Your task to perform on an android device: see creations saved in the google photos Image 0: 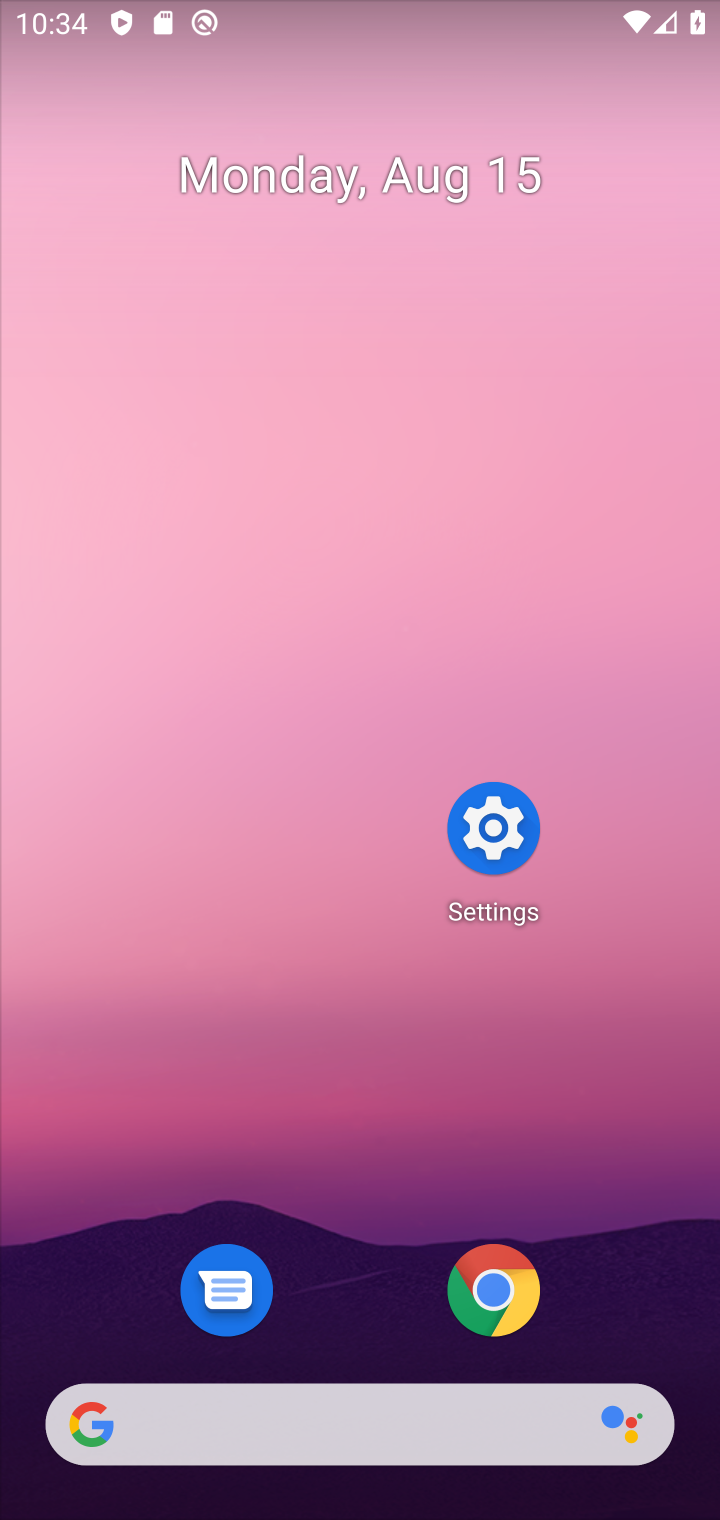
Step 0: press home button
Your task to perform on an android device: see creations saved in the google photos Image 1: 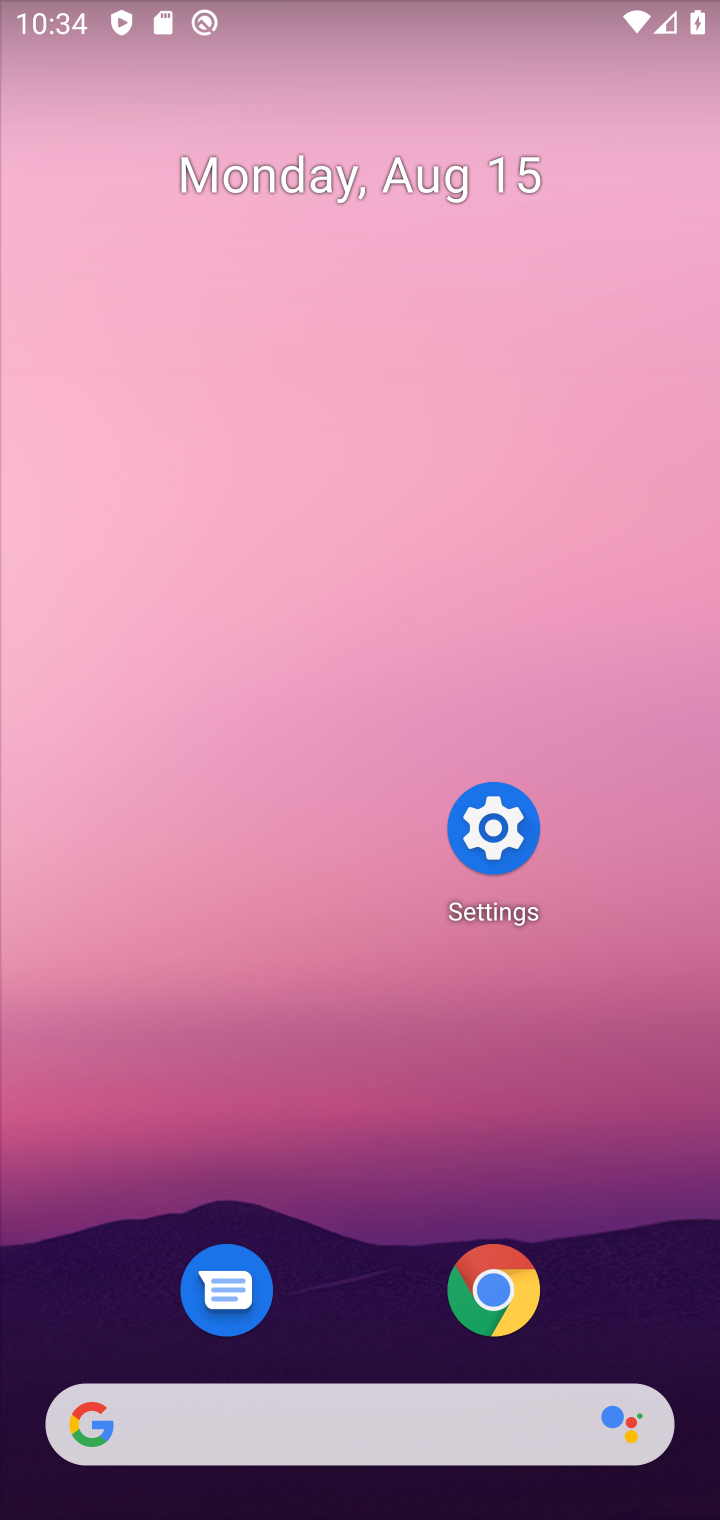
Step 1: drag from (354, 1425) to (666, 153)
Your task to perform on an android device: see creations saved in the google photos Image 2: 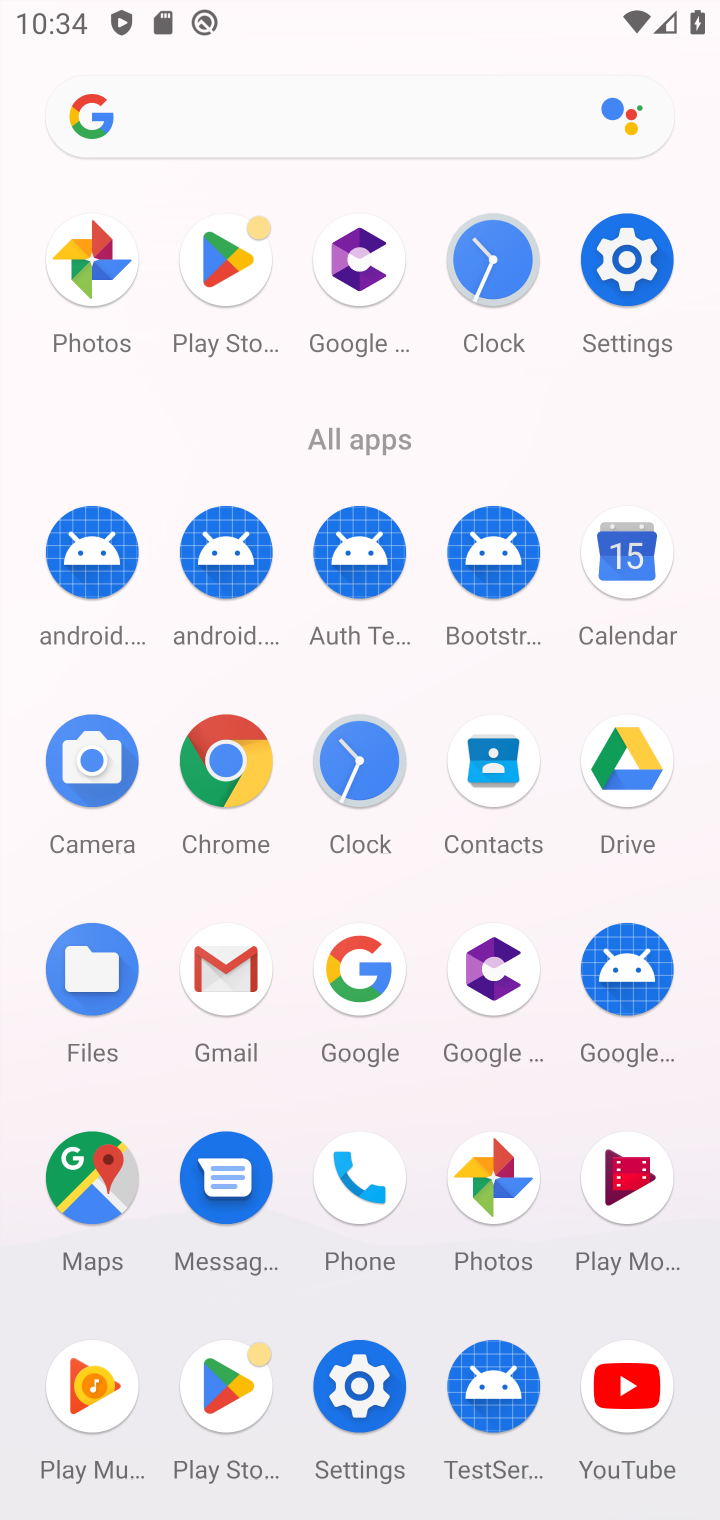
Step 2: click (494, 1179)
Your task to perform on an android device: see creations saved in the google photos Image 3: 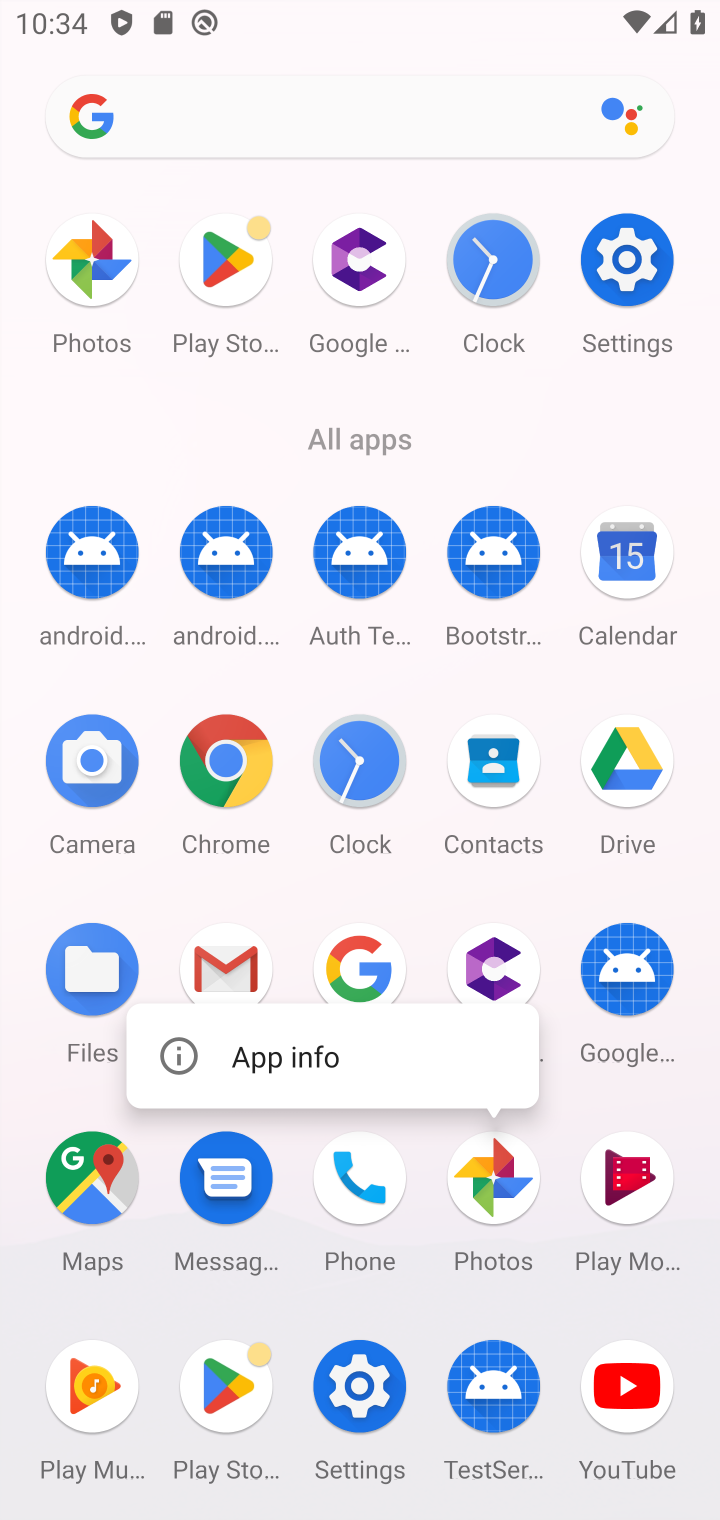
Step 3: click (494, 1181)
Your task to perform on an android device: see creations saved in the google photos Image 4: 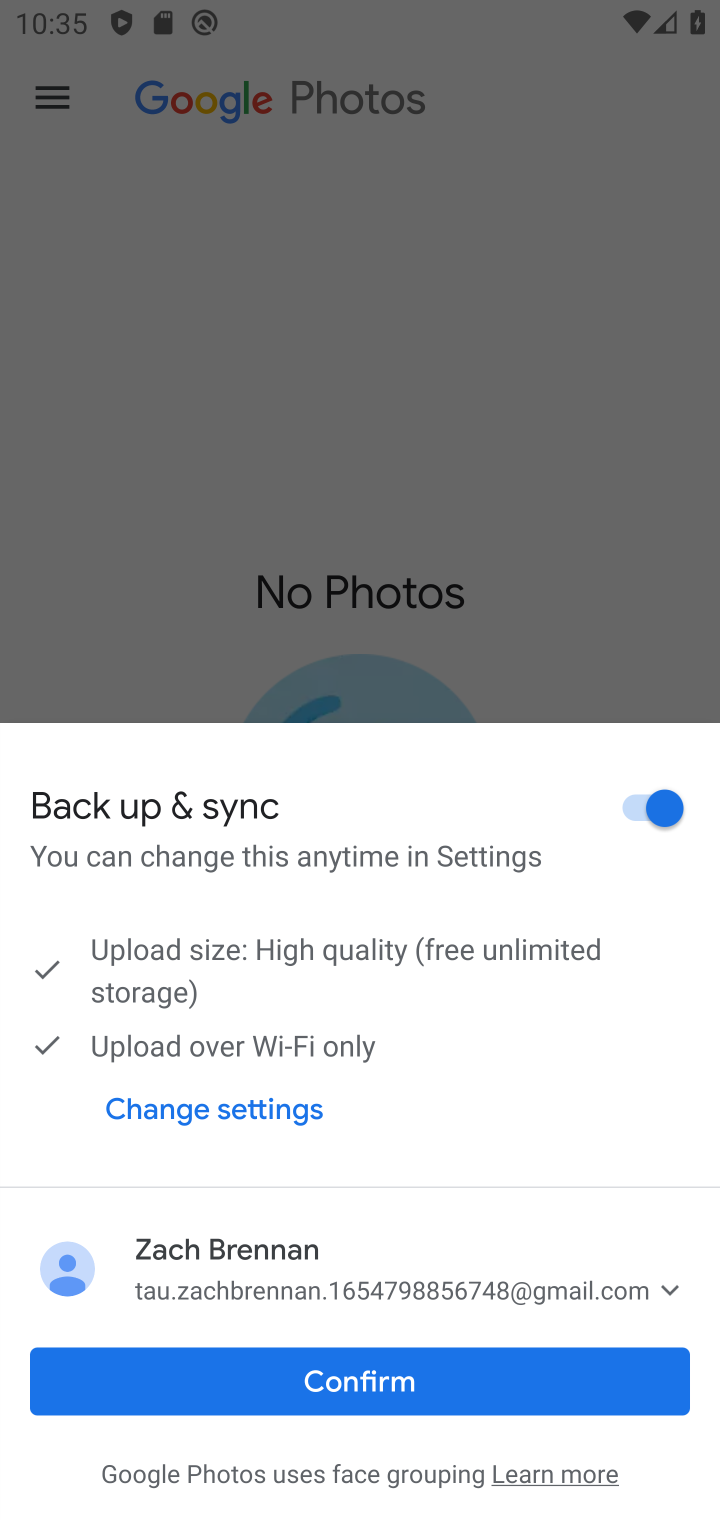
Step 4: click (371, 1377)
Your task to perform on an android device: see creations saved in the google photos Image 5: 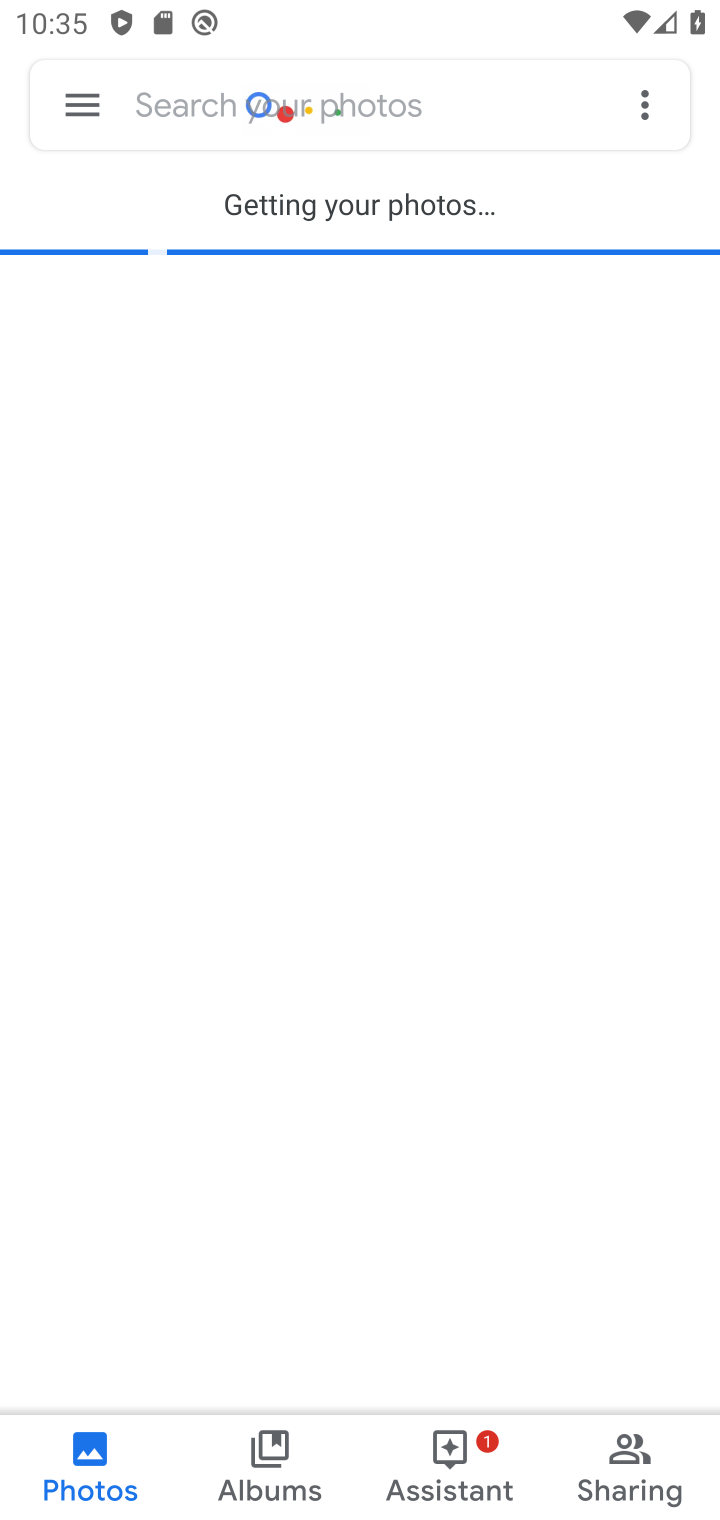
Step 5: click (253, 1459)
Your task to perform on an android device: see creations saved in the google photos Image 6: 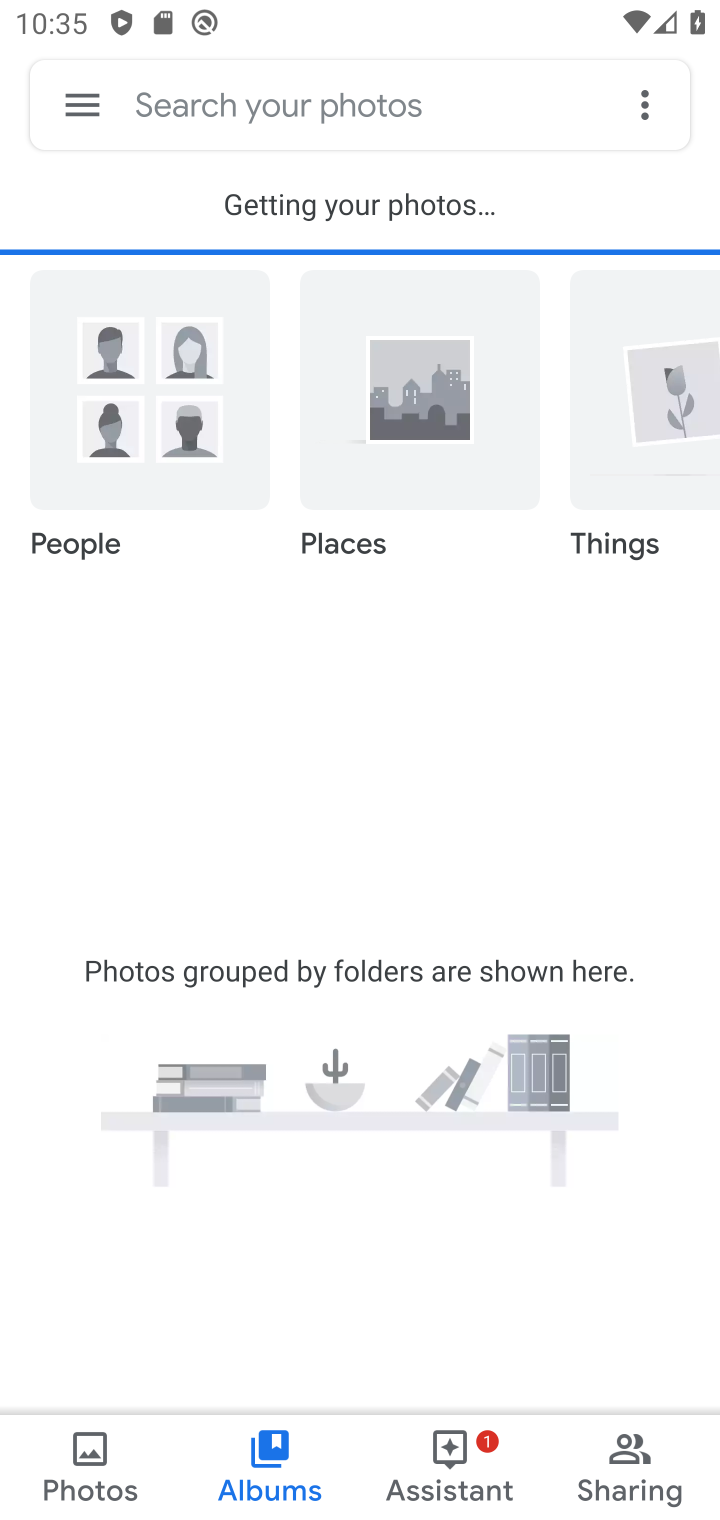
Step 6: click (354, 101)
Your task to perform on an android device: see creations saved in the google photos Image 7: 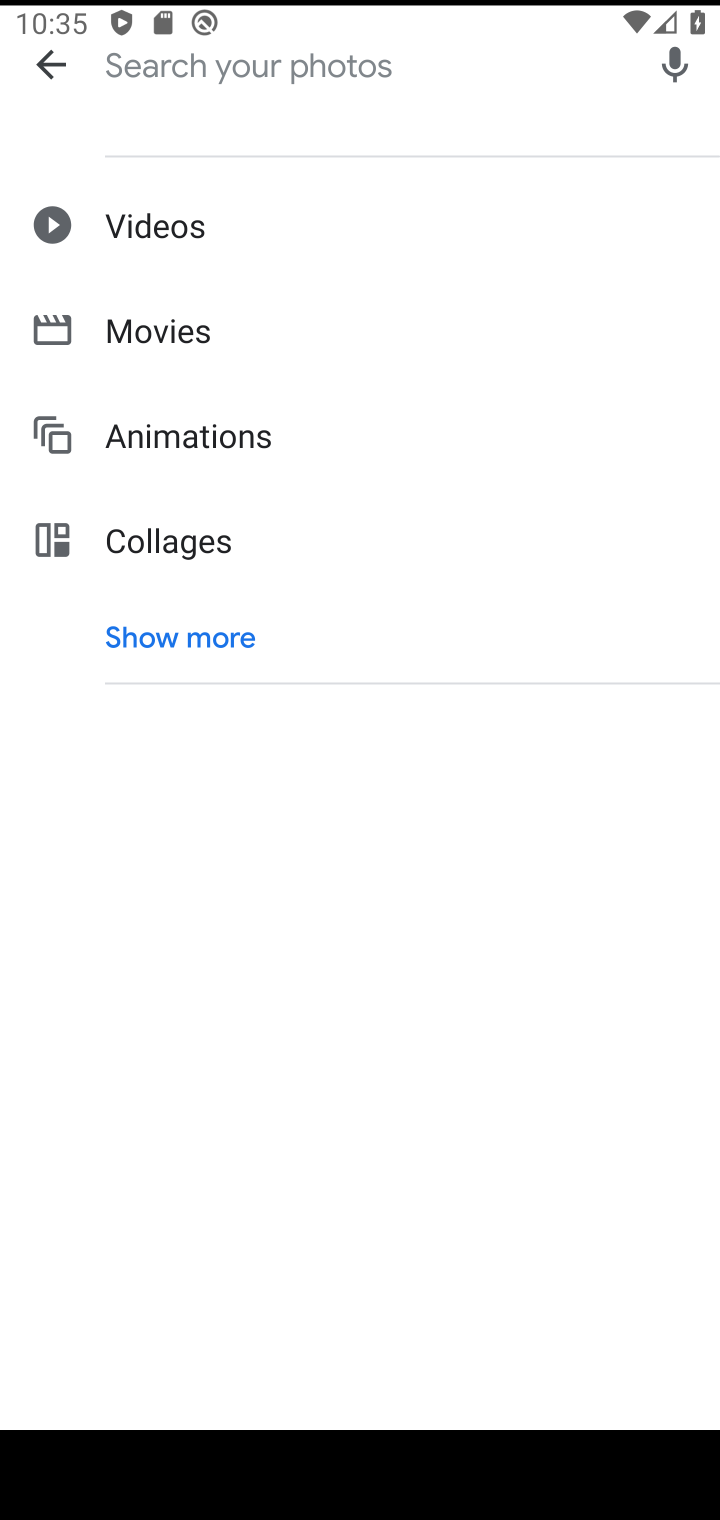
Step 7: click (161, 623)
Your task to perform on an android device: see creations saved in the google photos Image 8: 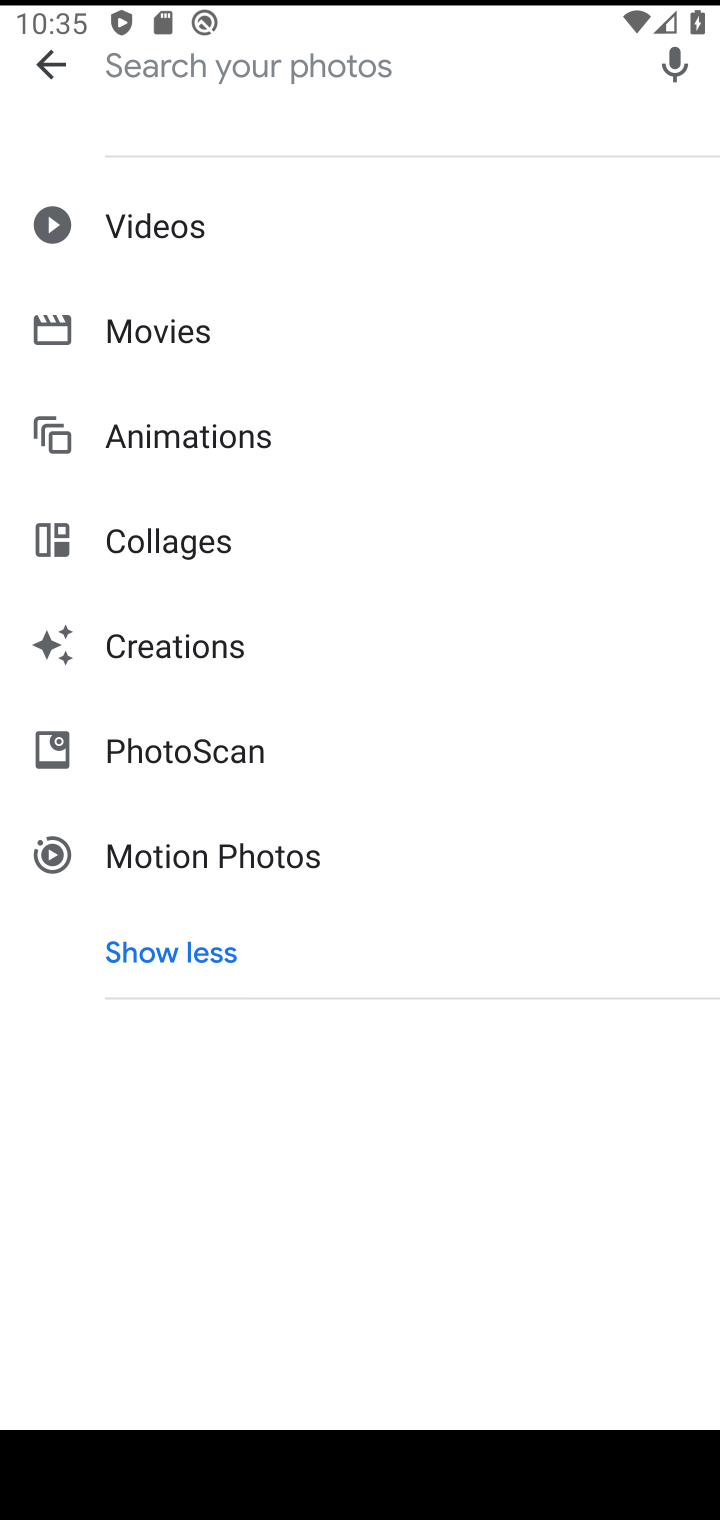
Step 8: click (183, 642)
Your task to perform on an android device: see creations saved in the google photos Image 9: 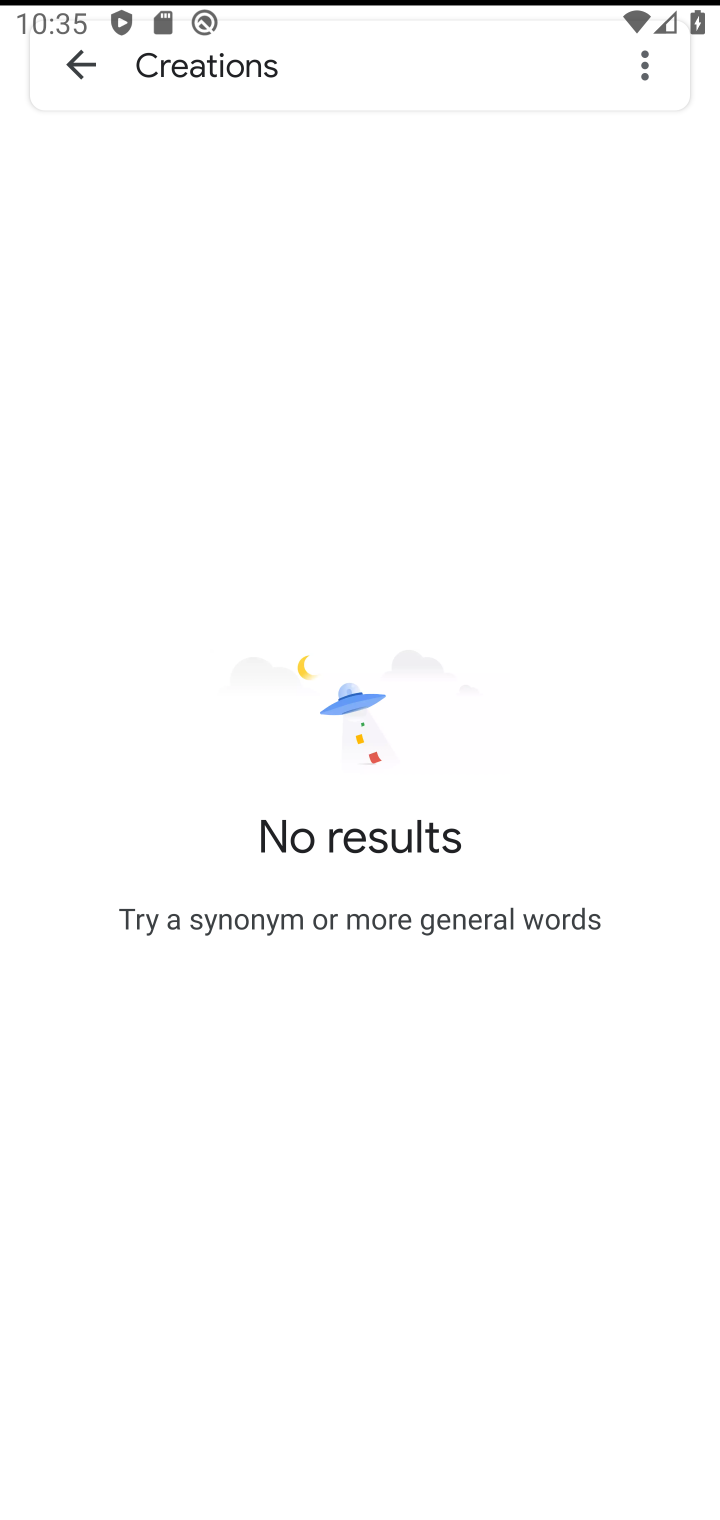
Step 9: task complete